Your task to perform on an android device: remove spam from my inbox in the gmail app Image 0: 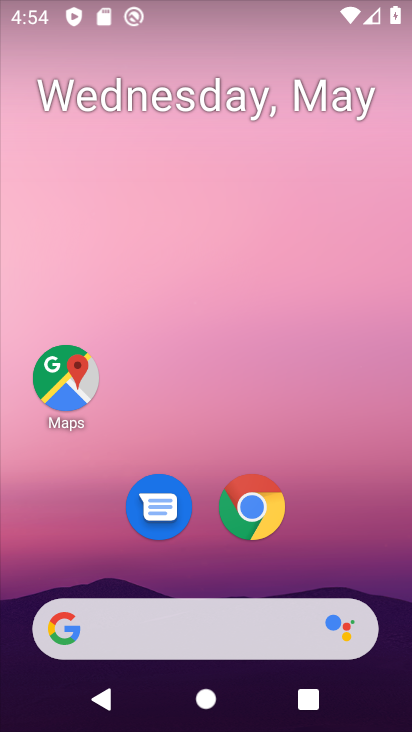
Step 0: drag from (330, 530) to (207, 67)
Your task to perform on an android device: remove spam from my inbox in the gmail app Image 1: 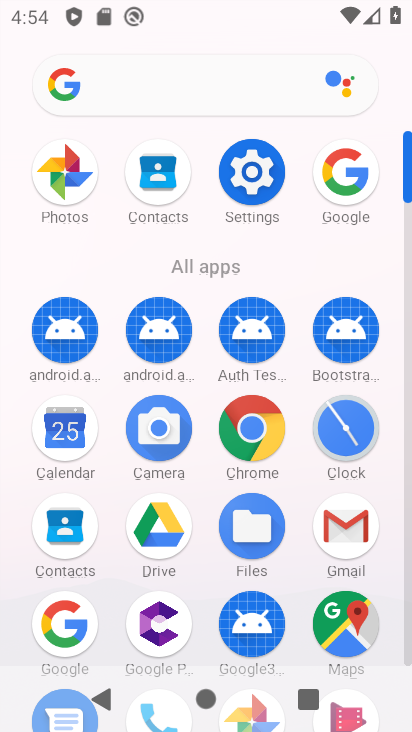
Step 1: click (346, 528)
Your task to perform on an android device: remove spam from my inbox in the gmail app Image 2: 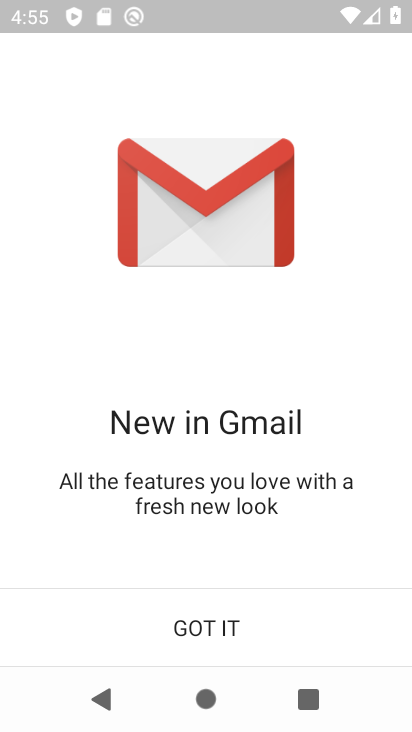
Step 2: click (208, 625)
Your task to perform on an android device: remove spam from my inbox in the gmail app Image 3: 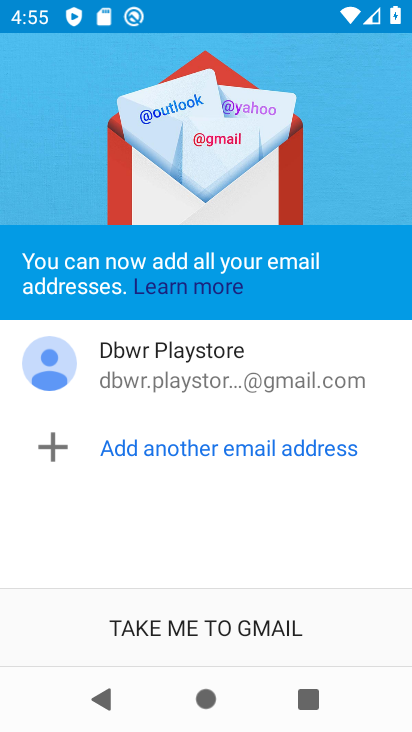
Step 3: click (208, 625)
Your task to perform on an android device: remove spam from my inbox in the gmail app Image 4: 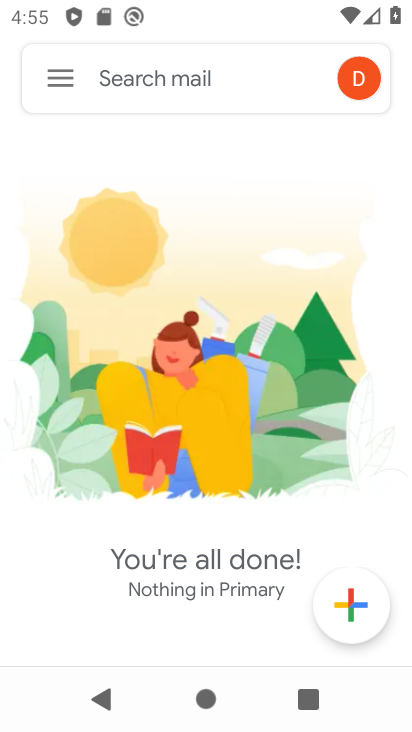
Step 4: click (61, 78)
Your task to perform on an android device: remove spam from my inbox in the gmail app Image 5: 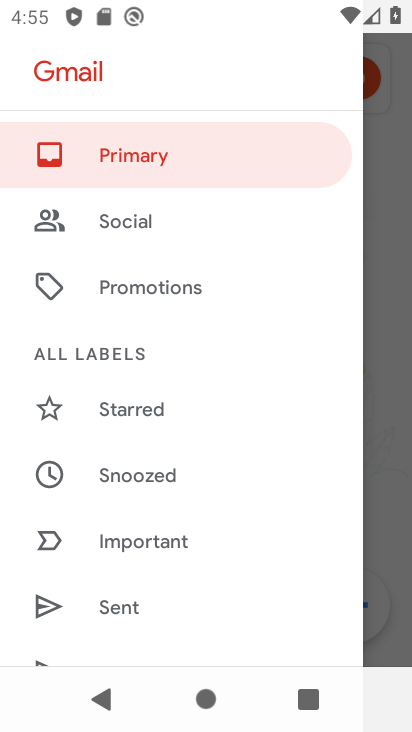
Step 5: drag from (146, 567) to (157, 414)
Your task to perform on an android device: remove spam from my inbox in the gmail app Image 6: 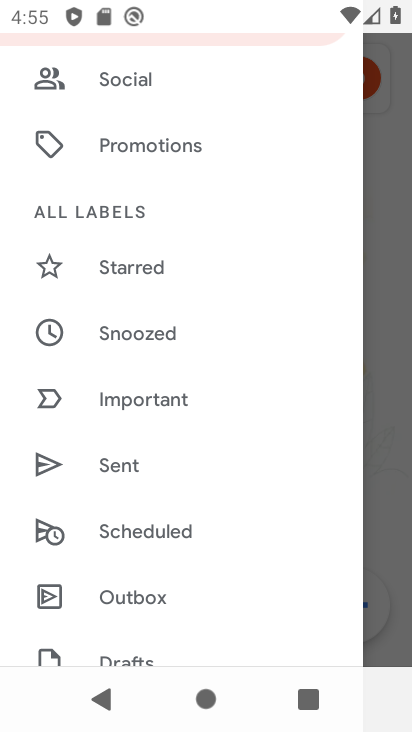
Step 6: drag from (143, 554) to (142, 451)
Your task to perform on an android device: remove spam from my inbox in the gmail app Image 7: 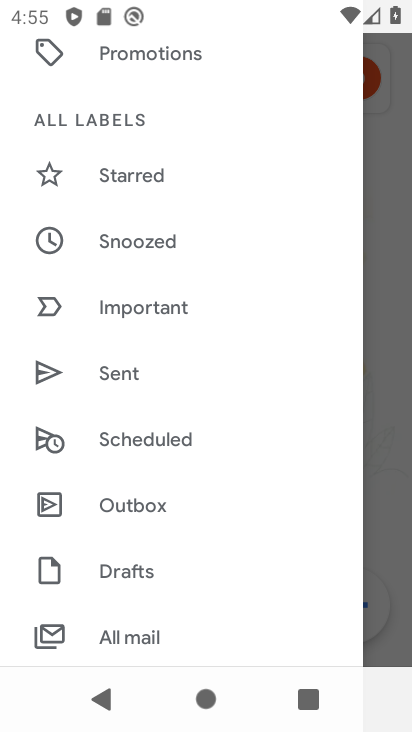
Step 7: drag from (132, 539) to (149, 426)
Your task to perform on an android device: remove spam from my inbox in the gmail app Image 8: 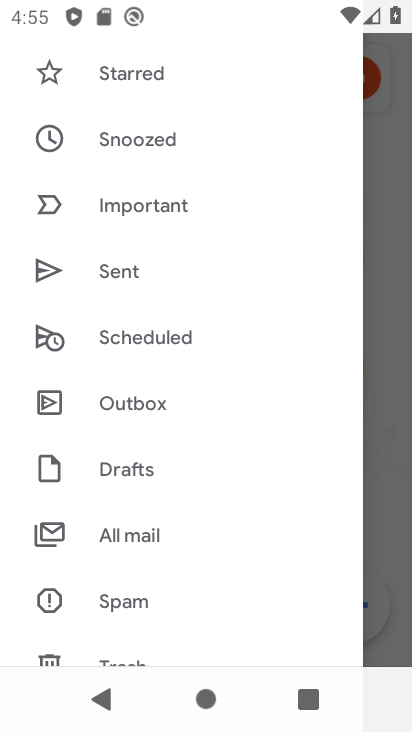
Step 8: drag from (129, 586) to (165, 483)
Your task to perform on an android device: remove spam from my inbox in the gmail app Image 9: 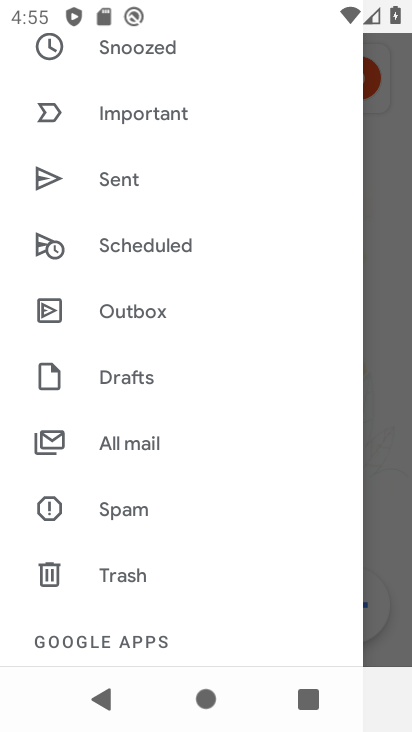
Step 9: click (126, 521)
Your task to perform on an android device: remove spam from my inbox in the gmail app Image 10: 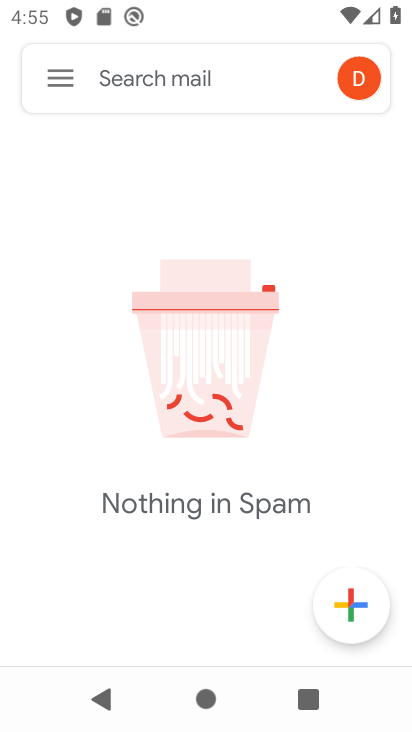
Step 10: task complete